Your task to perform on an android device: turn pop-ups off in chrome Image 0: 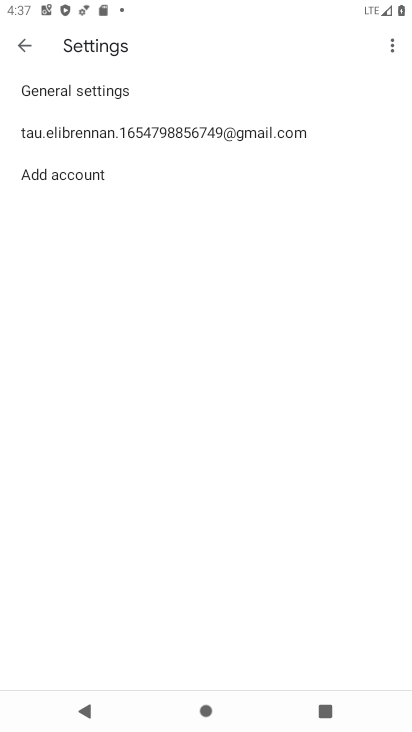
Step 0: press home button
Your task to perform on an android device: turn pop-ups off in chrome Image 1: 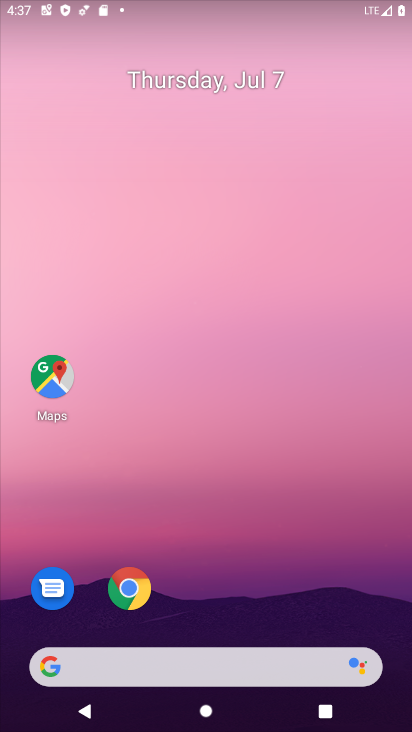
Step 1: drag from (208, 647) to (246, 22)
Your task to perform on an android device: turn pop-ups off in chrome Image 2: 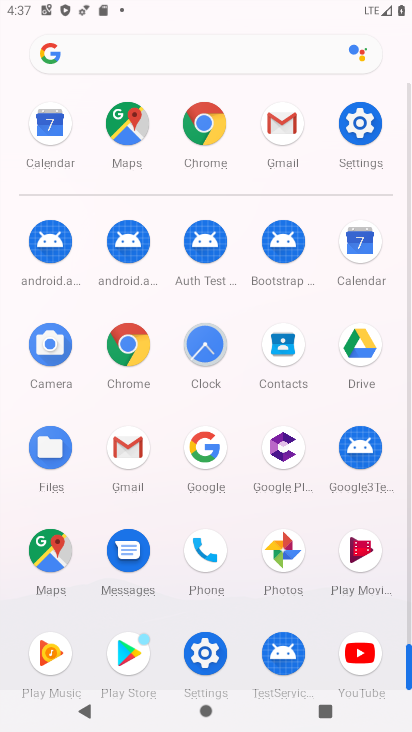
Step 2: click (138, 347)
Your task to perform on an android device: turn pop-ups off in chrome Image 3: 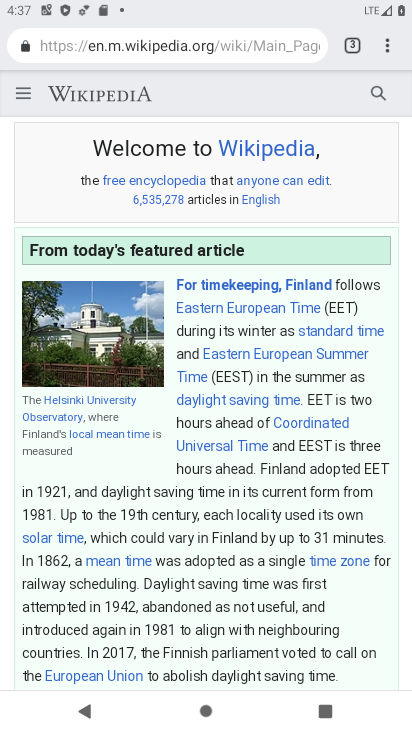
Step 3: click (381, 41)
Your task to perform on an android device: turn pop-ups off in chrome Image 4: 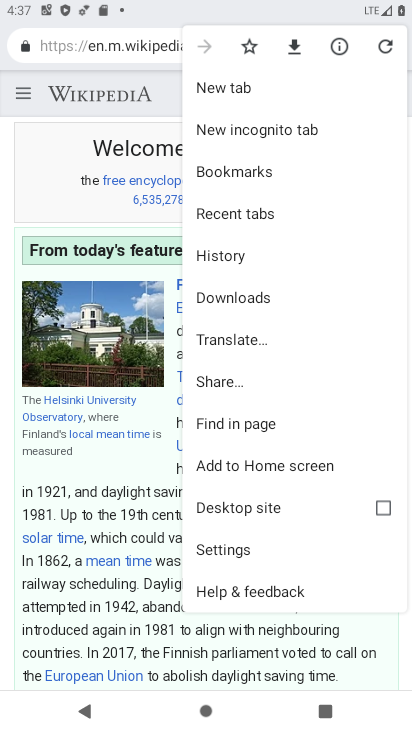
Step 4: click (242, 541)
Your task to perform on an android device: turn pop-ups off in chrome Image 5: 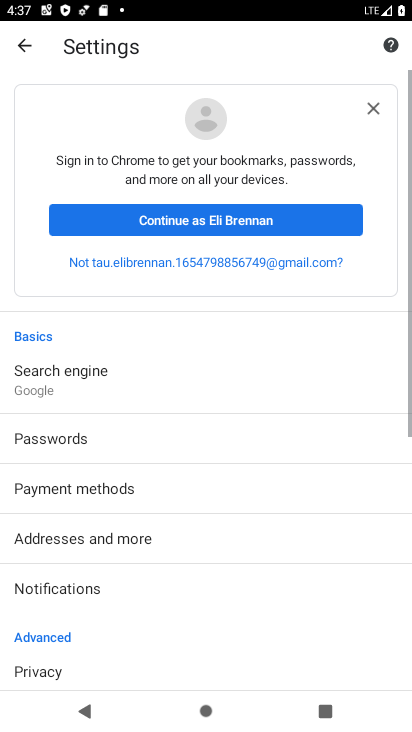
Step 5: drag from (172, 582) to (214, 139)
Your task to perform on an android device: turn pop-ups off in chrome Image 6: 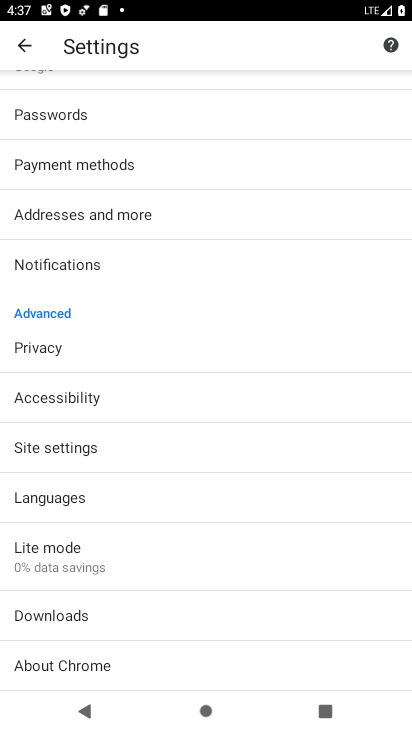
Step 6: click (132, 458)
Your task to perform on an android device: turn pop-ups off in chrome Image 7: 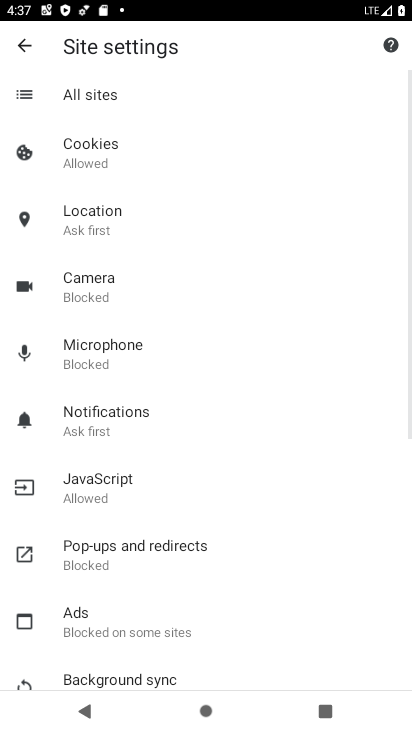
Step 7: click (143, 555)
Your task to perform on an android device: turn pop-ups off in chrome Image 8: 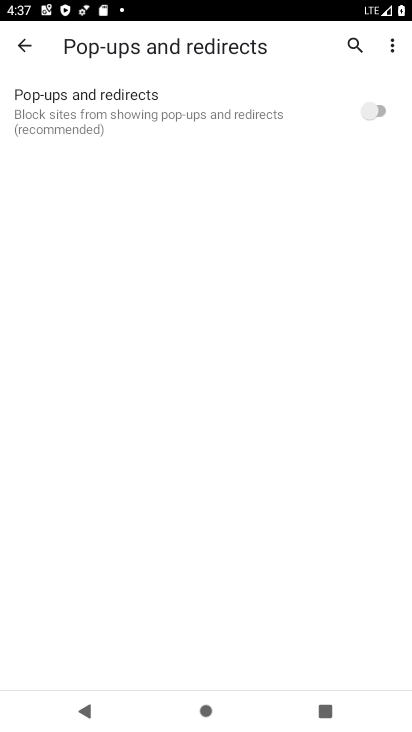
Step 8: task complete